Your task to perform on an android device: Open location settings Image 0: 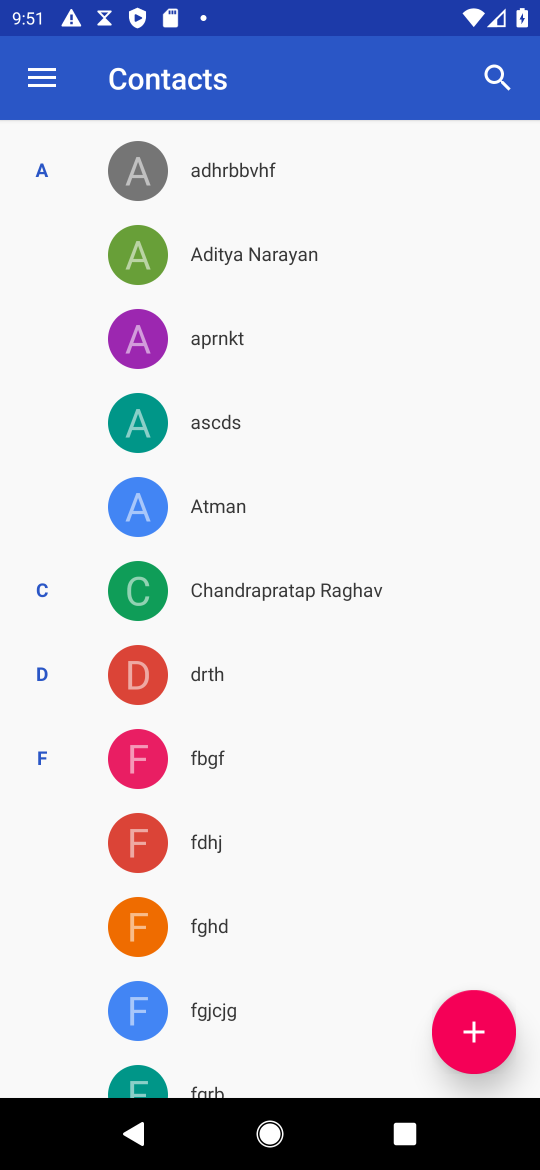
Step 0: press home button
Your task to perform on an android device: Open location settings Image 1: 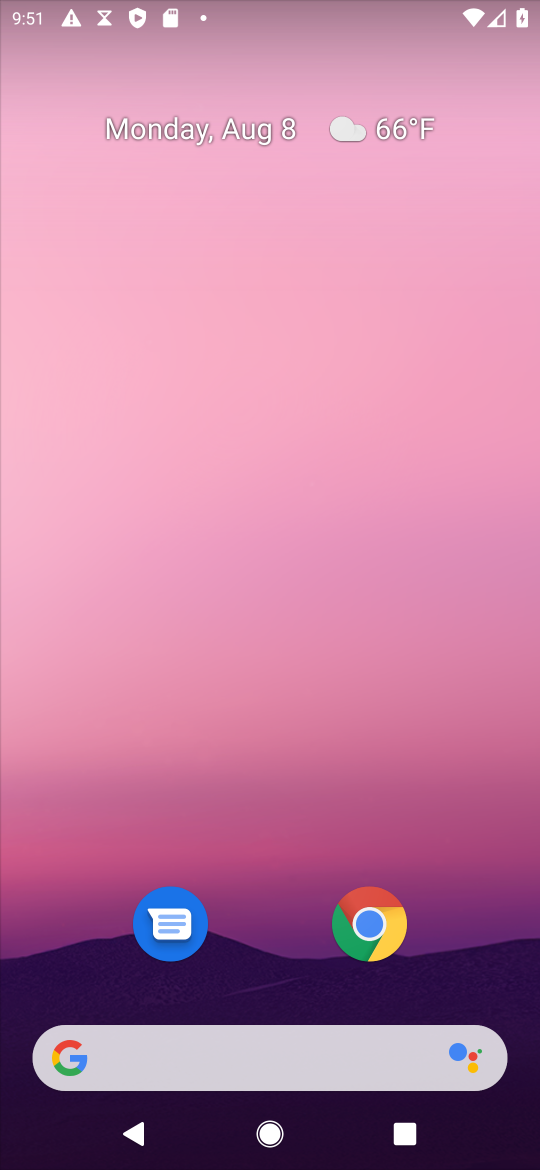
Step 1: drag from (305, 945) to (437, 53)
Your task to perform on an android device: Open location settings Image 2: 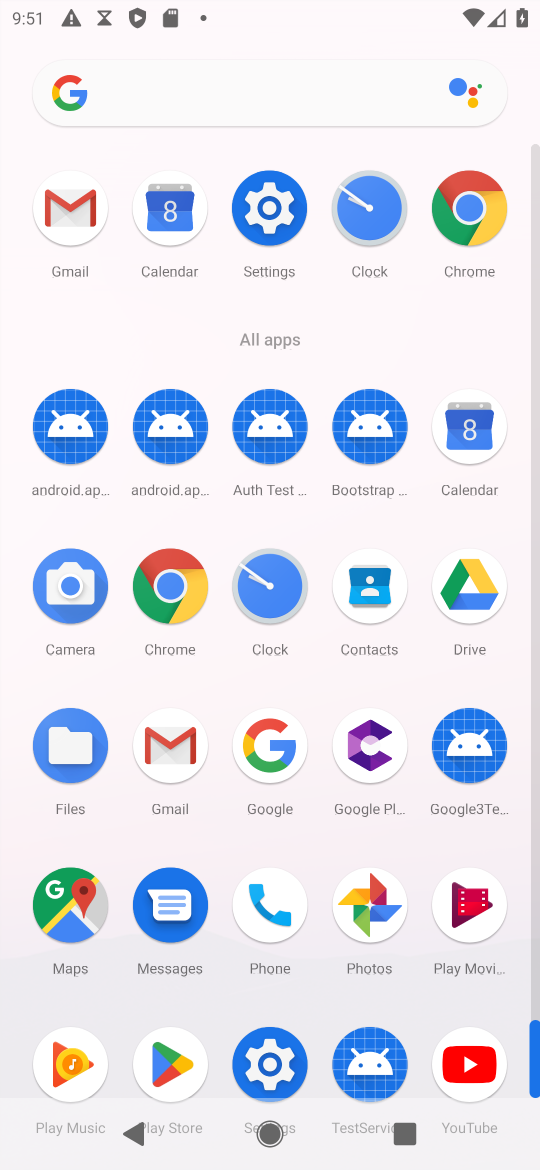
Step 2: click (279, 1065)
Your task to perform on an android device: Open location settings Image 3: 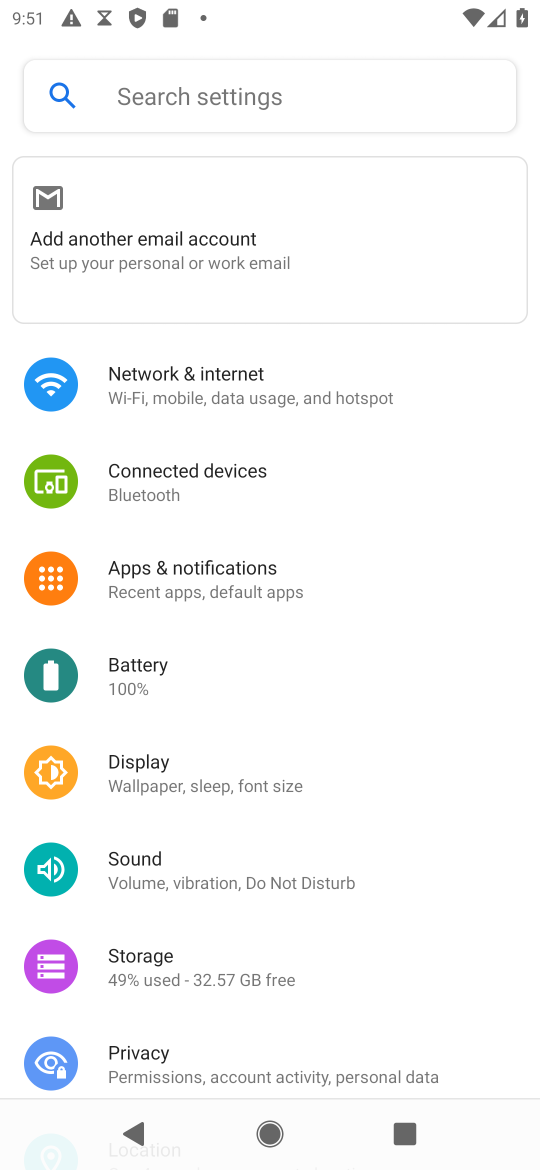
Step 3: drag from (201, 993) to (374, 374)
Your task to perform on an android device: Open location settings Image 4: 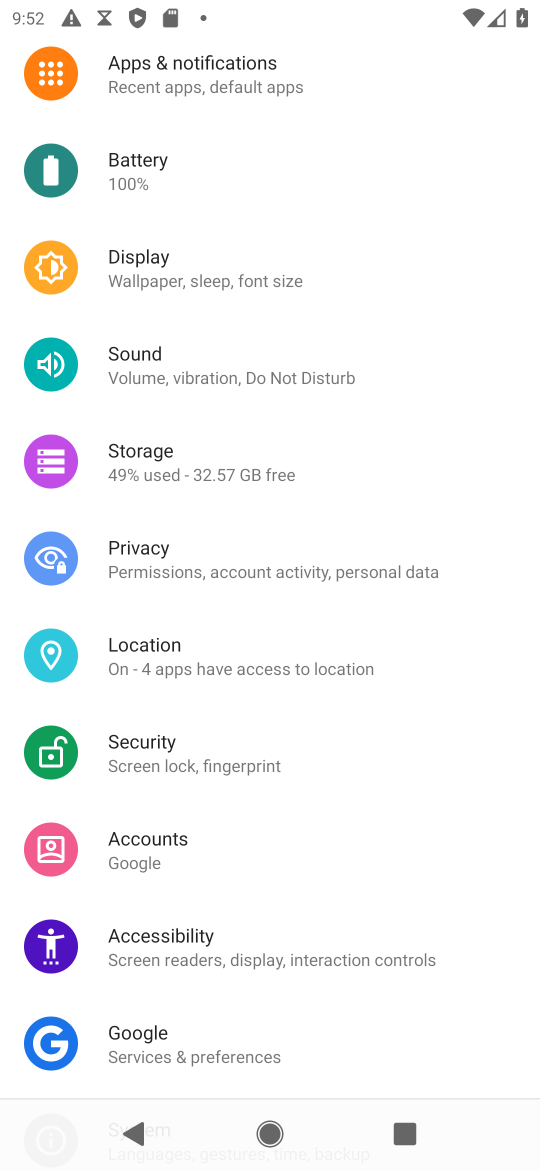
Step 4: click (256, 655)
Your task to perform on an android device: Open location settings Image 5: 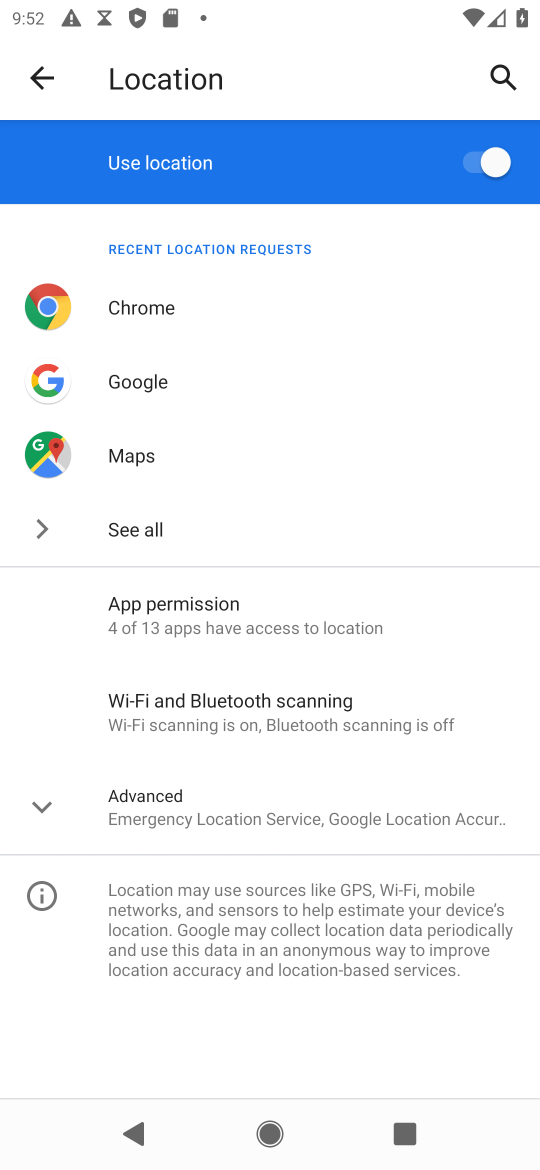
Step 5: task complete